Your task to perform on an android device: create a new album in the google photos Image 0: 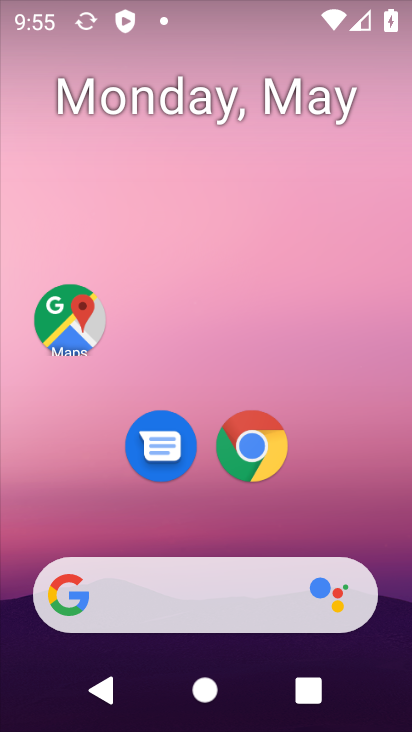
Step 0: drag from (367, 522) to (253, 199)
Your task to perform on an android device: create a new album in the google photos Image 1: 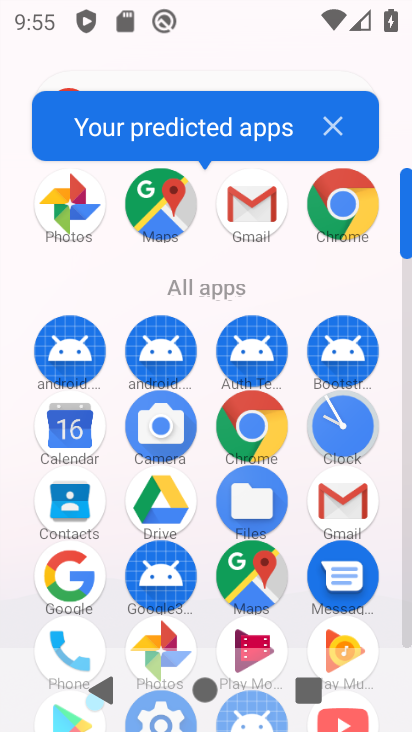
Step 1: click (167, 632)
Your task to perform on an android device: create a new album in the google photos Image 2: 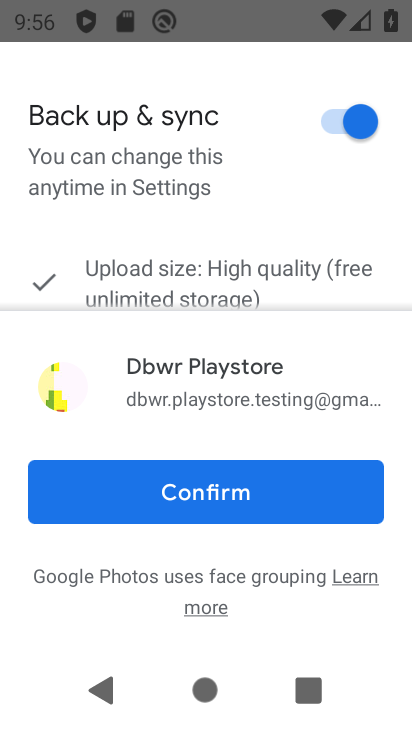
Step 2: click (240, 512)
Your task to perform on an android device: create a new album in the google photos Image 3: 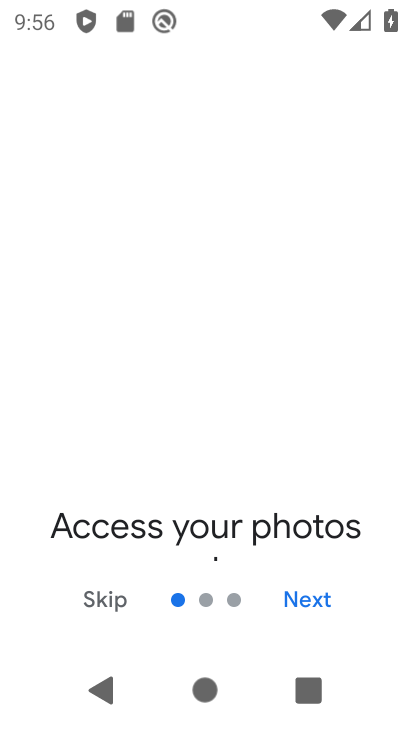
Step 3: click (310, 605)
Your task to perform on an android device: create a new album in the google photos Image 4: 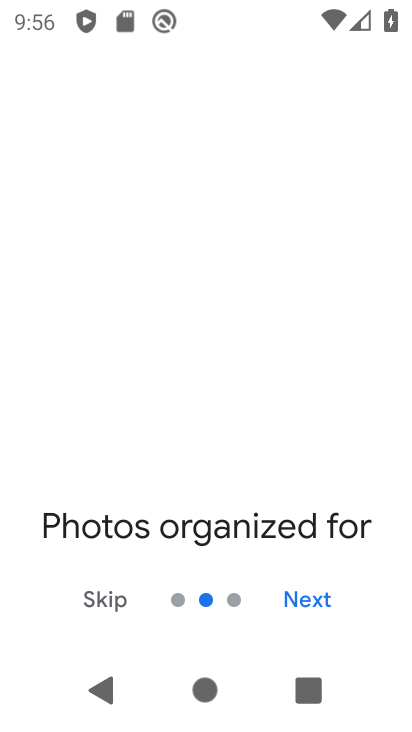
Step 4: click (312, 604)
Your task to perform on an android device: create a new album in the google photos Image 5: 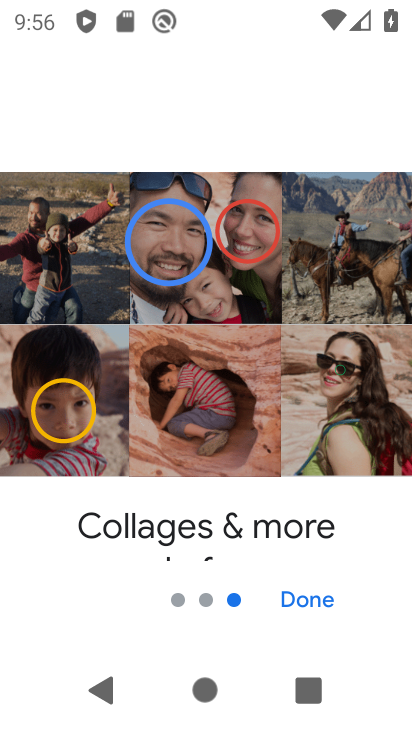
Step 5: click (312, 604)
Your task to perform on an android device: create a new album in the google photos Image 6: 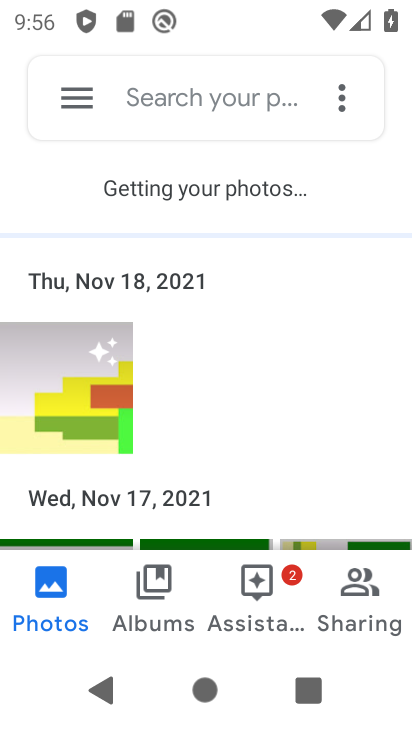
Step 6: click (83, 431)
Your task to perform on an android device: create a new album in the google photos Image 7: 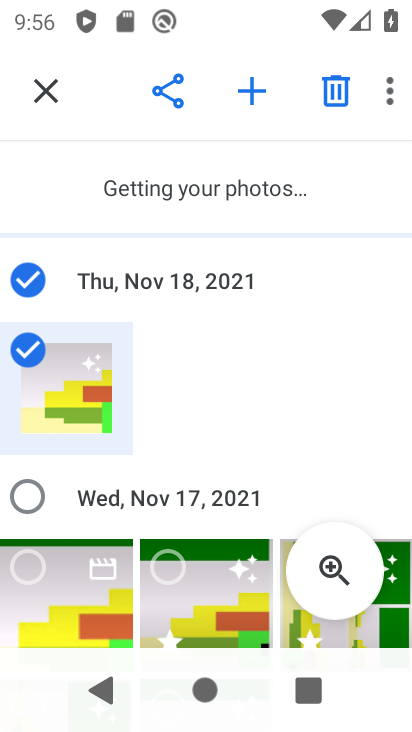
Step 7: click (178, 551)
Your task to perform on an android device: create a new album in the google photos Image 8: 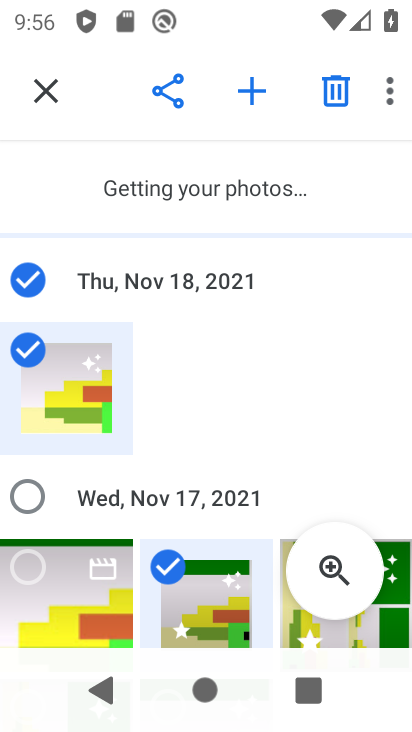
Step 8: click (254, 95)
Your task to perform on an android device: create a new album in the google photos Image 9: 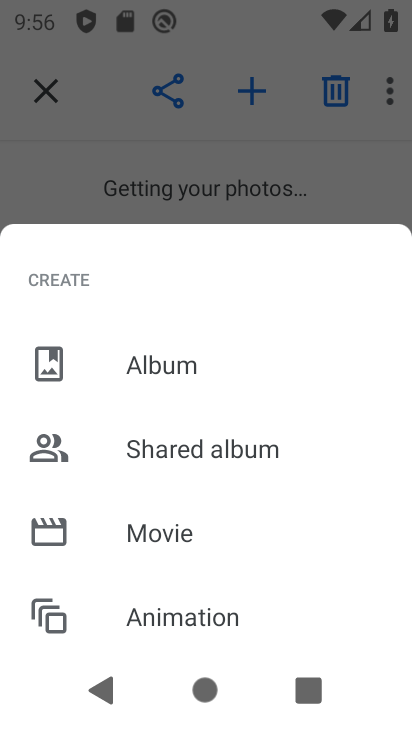
Step 9: click (217, 358)
Your task to perform on an android device: create a new album in the google photos Image 10: 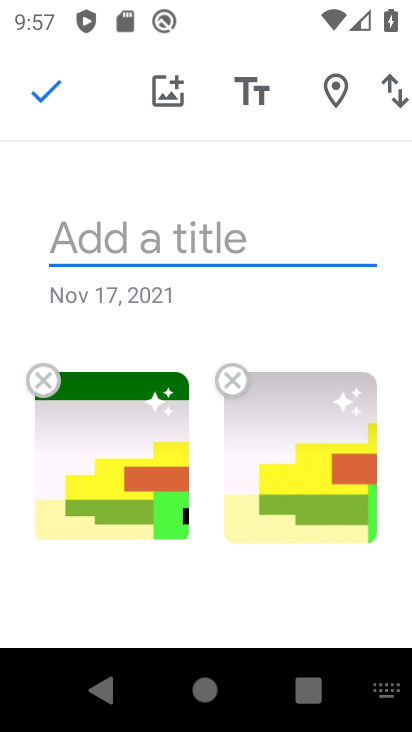
Step 10: type "lkklkl"
Your task to perform on an android device: create a new album in the google photos Image 11: 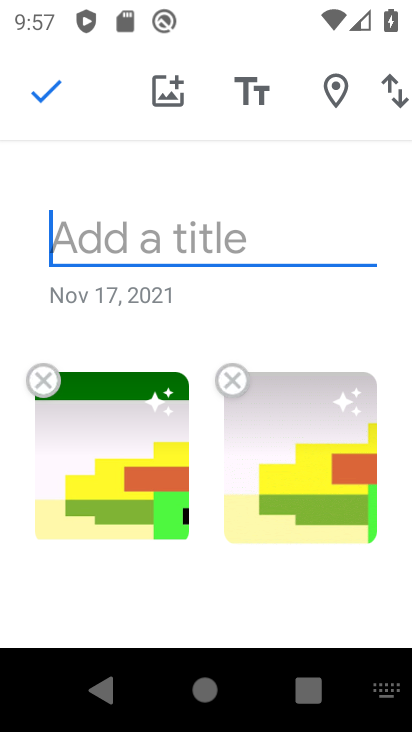
Step 11: click (49, 88)
Your task to perform on an android device: create a new album in the google photos Image 12: 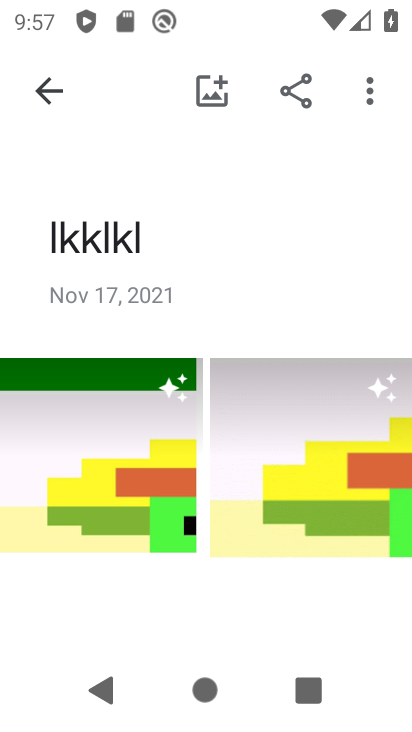
Step 12: task complete